Your task to perform on an android device: Open Youtube and go to "Your channel" Image 0: 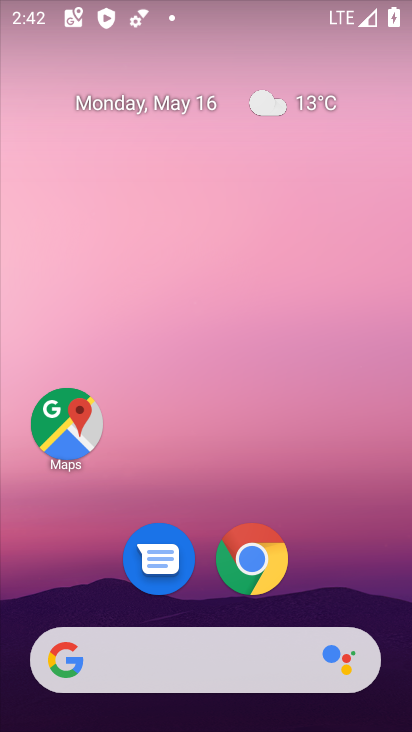
Step 0: drag from (194, 541) to (276, 58)
Your task to perform on an android device: Open Youtube and go to "Your channel" Image 1: 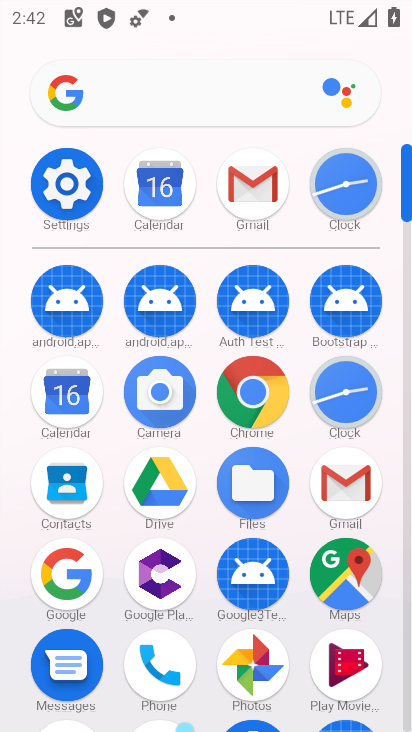
Step 1: drag from (204, 588) to (295, 9)
Your task to perform on an android device: Open Youtube and go to "Your channel" Image 2: 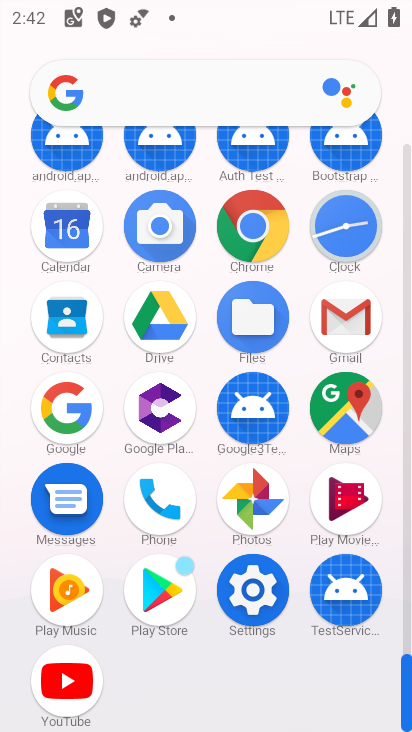
Step 2: click (74, 666)
Your task to perform on an android device: Open Youtube and go to "Your channel" Image 3: 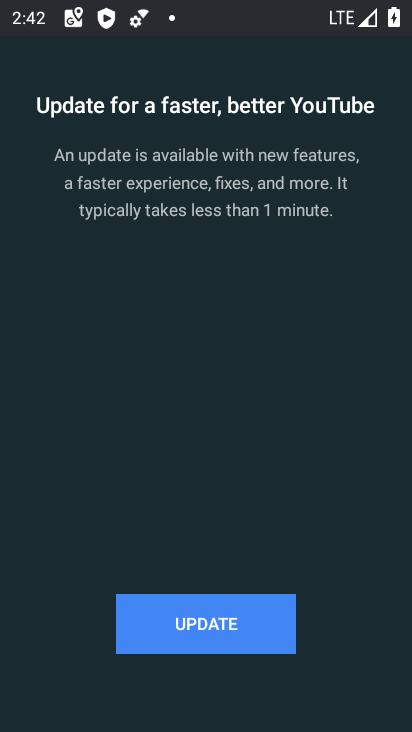
Step 3: click (245, 611)
Your task to perform on an android device: Open Youtube and go to "Your channel" Image 4: 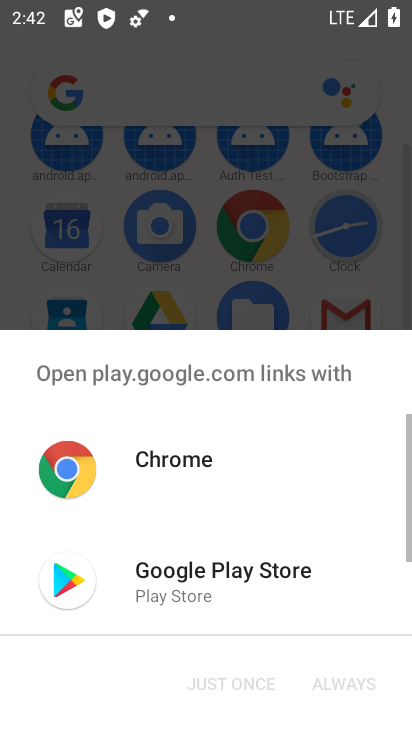
Step 4: click (231, 585)
Your task to perform on an android device: Open Youtube and go to "Your channel" Image 5: 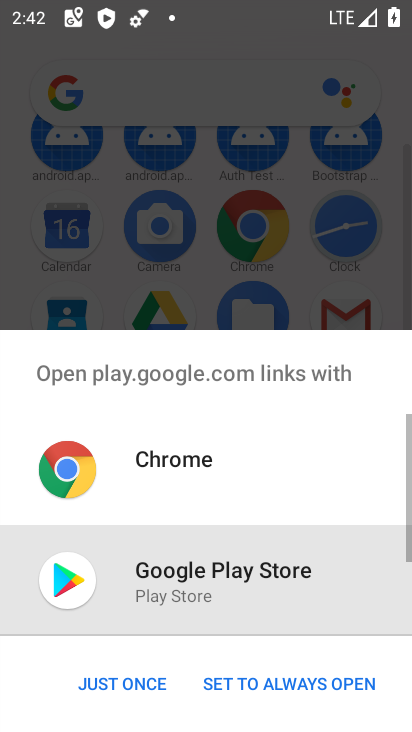
Step 5: click (133, 679)
Your task to perform on an android device: Open Youtube and go to "Your channel" Image 6: 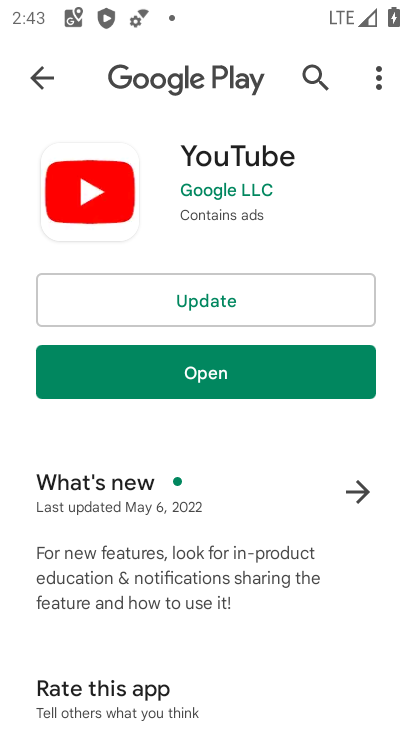
Step 6: click (208, 299)
Your task to perform on an android device: Open Youtube and go to "Your channel" Image 7: 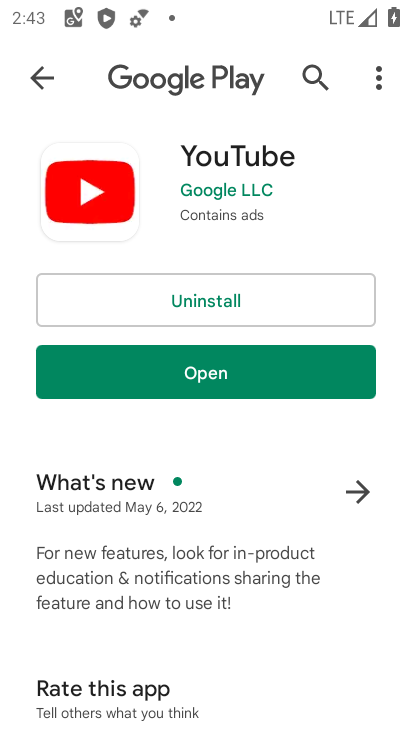
Step 7: click (194, 399)
Your task to perform on an android device: Open Youtube and go to "Your channel" Image 8: 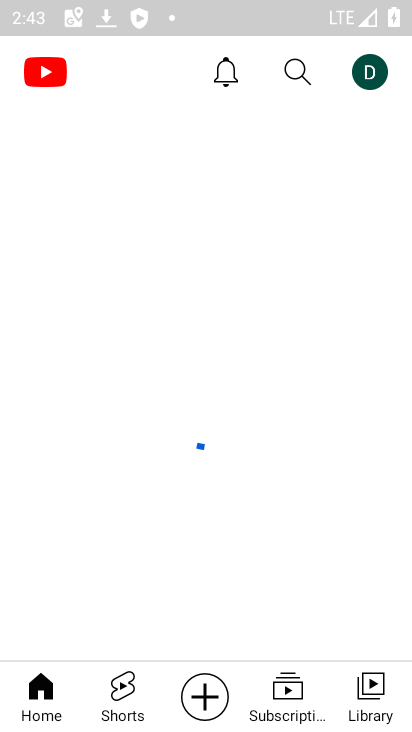
Step 8: click (366, 69)
Your task to perform on an android device: Open Youtube and go to "Your channel" Image 9: 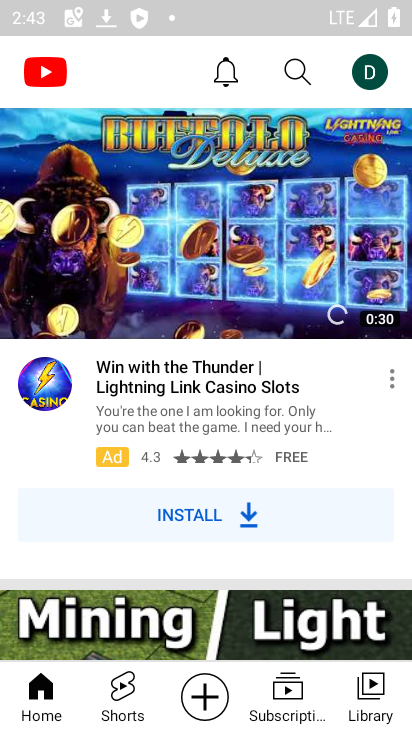
Step 9: click (372, 76)
Your task to perform on an android device: Open Youtube and go to "Your channel" Image 10: 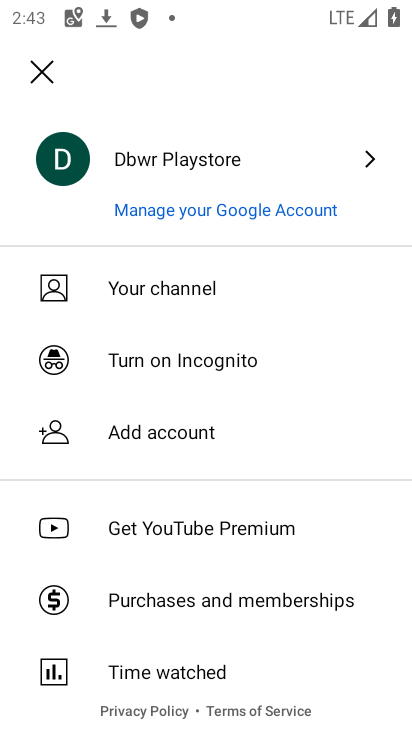
Step 10: click (131, 294)
Your task to perform on an android device: Open Youtube and go to "Your channel" Image 11: 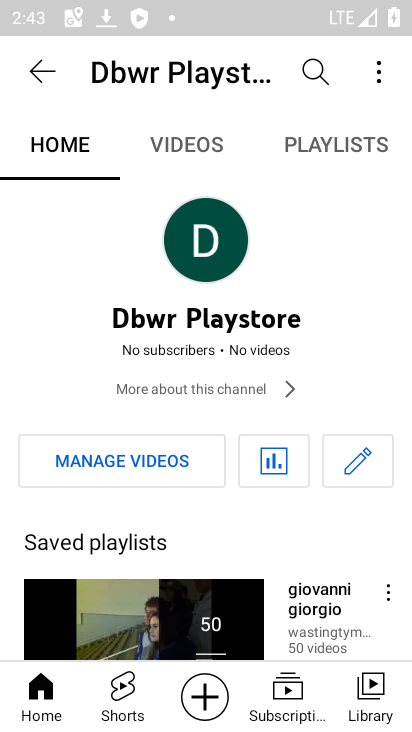
Step 11: task complete